Your task to perform on an android device: turn on bluetooth scan Image 0: 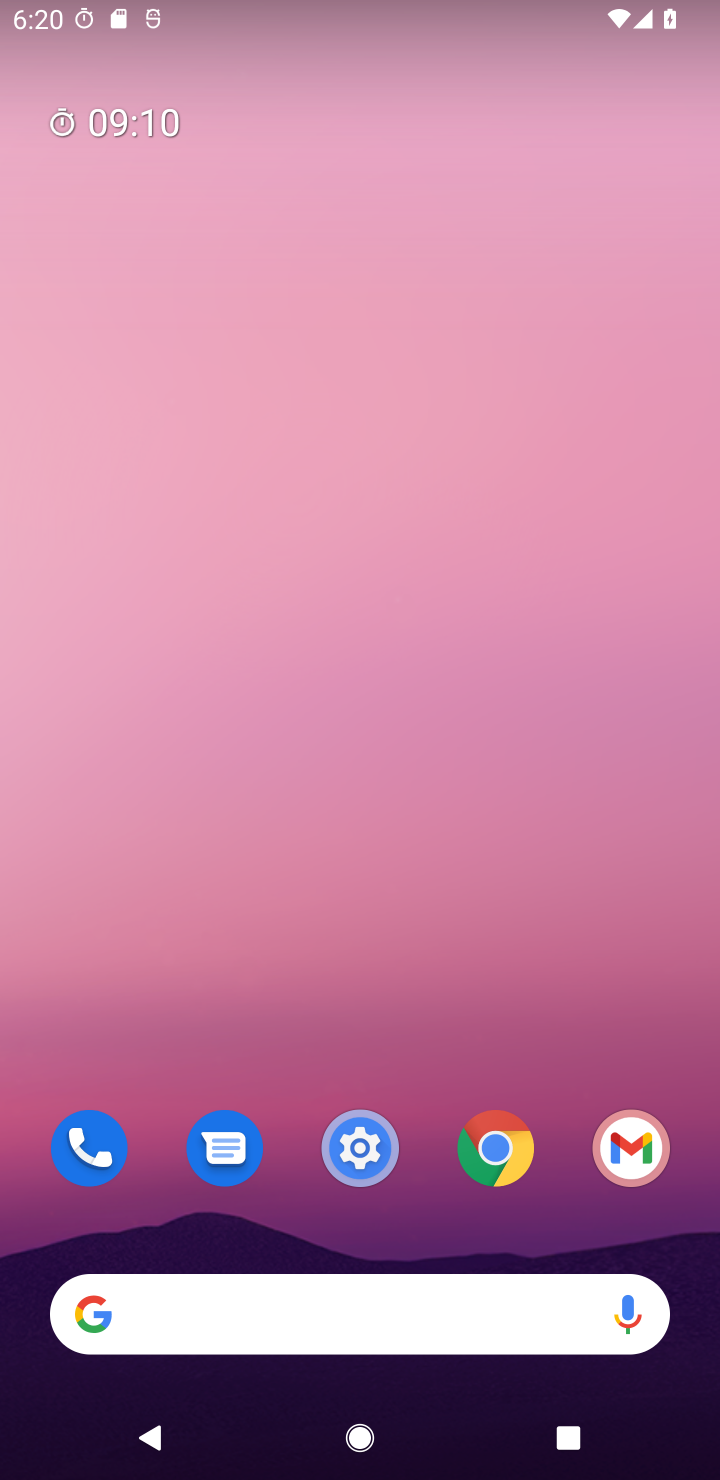
Step 0: click (378, 1149)
Your task to perform on an android device: turn on bluetooth scan Image 1: 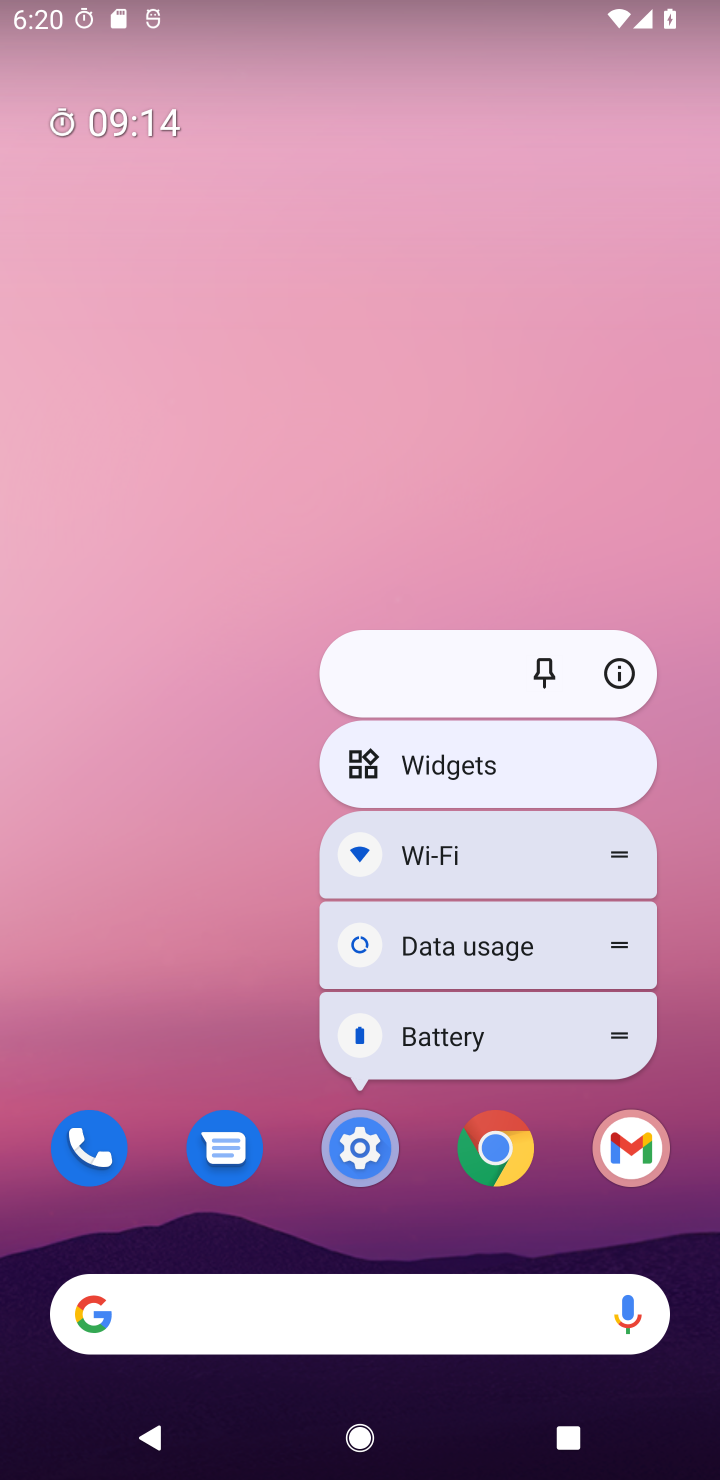
Step 1: click (373, 1168)
Your task to perform on an android device: turn on bluetooth scan Image 2: 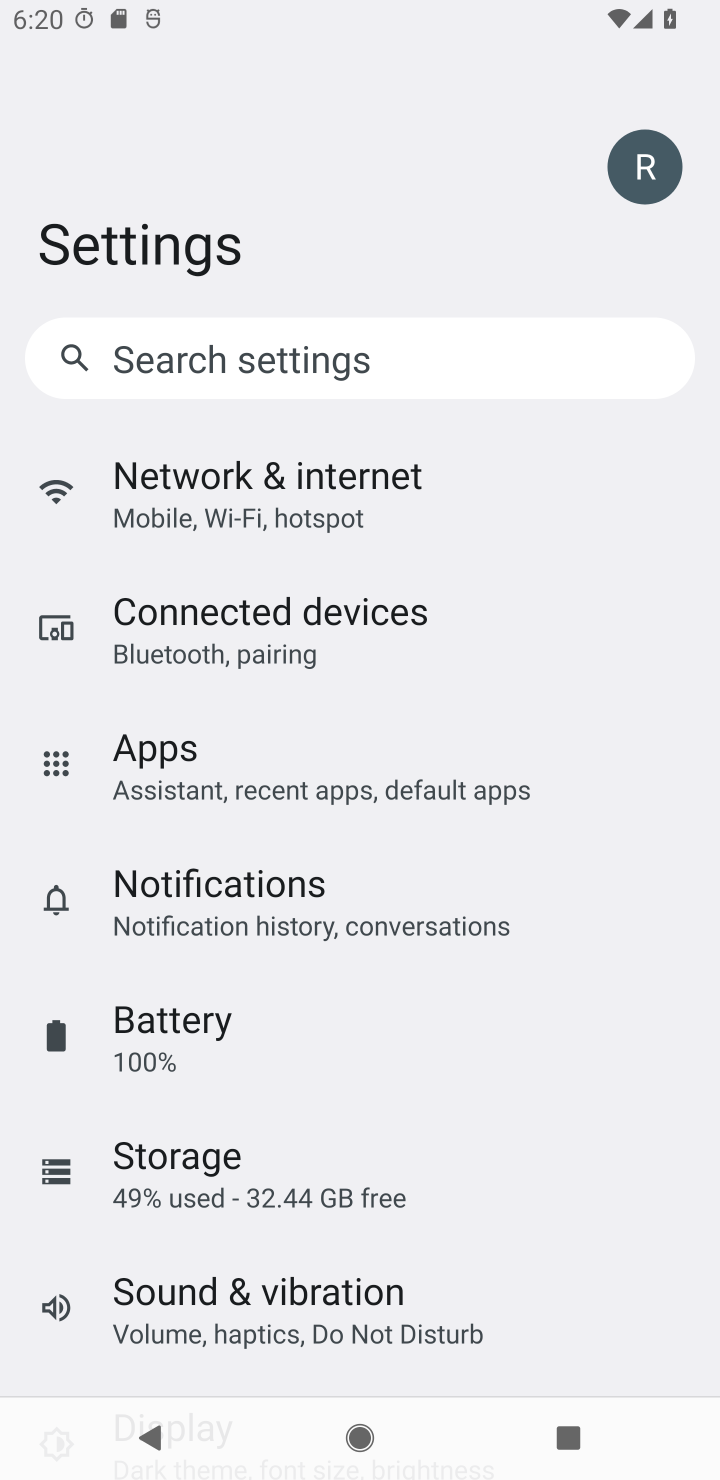
Step 2: drag from (182, 1199) to (338, 641)
Your task to perform on an android device: turn on bluetooth scan Image 3: 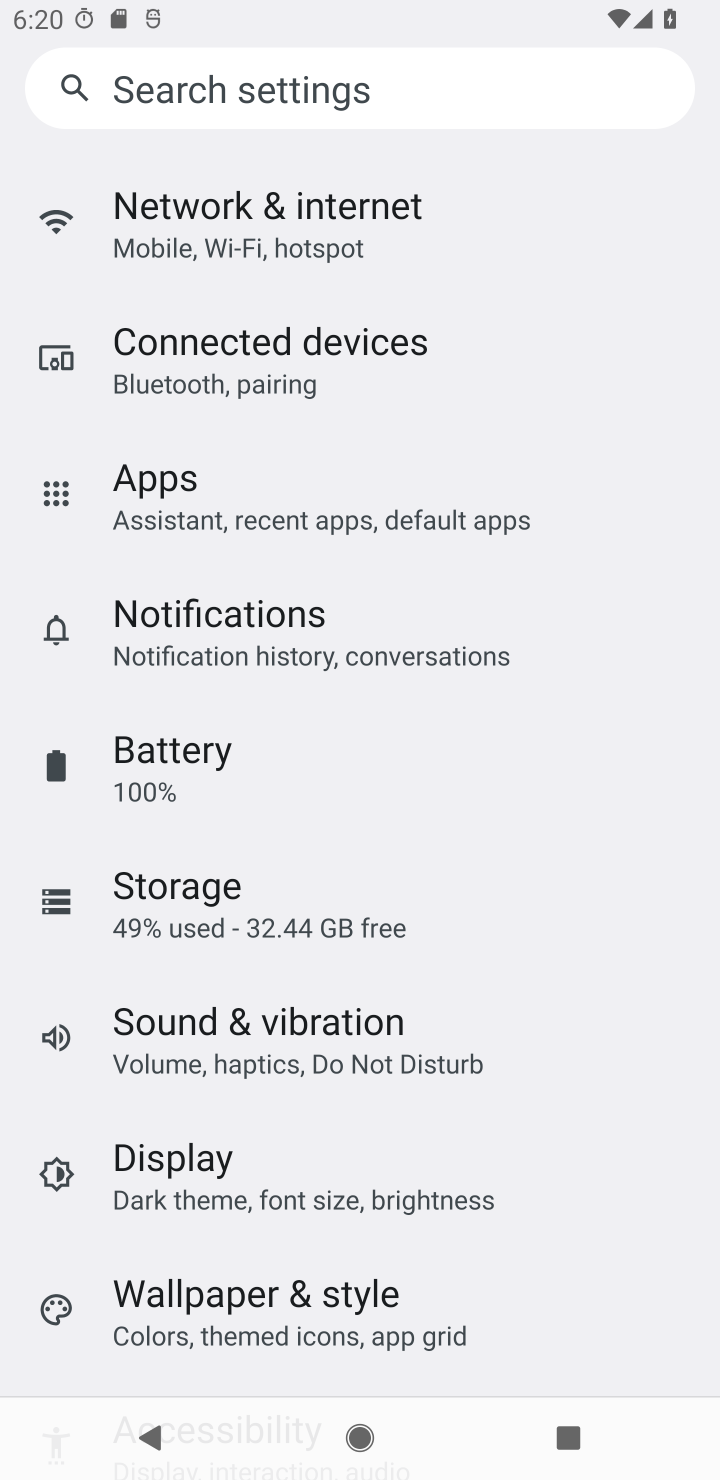
Step 3: drag from (240, 1252) to (283, 616)
Your task to perform on an android device: turn on bluetooth scan Image 4: 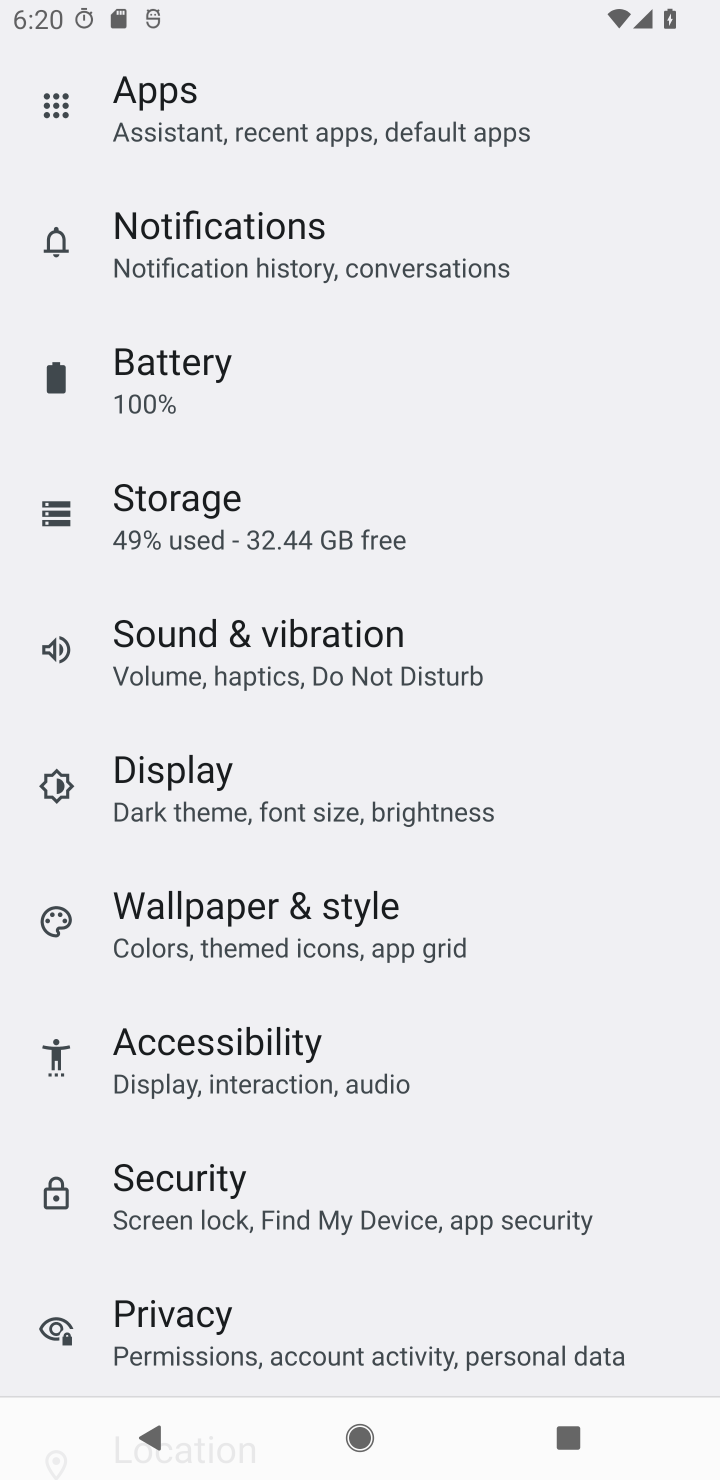
Step 4: drag from (243, 1238) to (338, 405)
Your task to perform on an android device: turn on bluetooth scan Image 5: 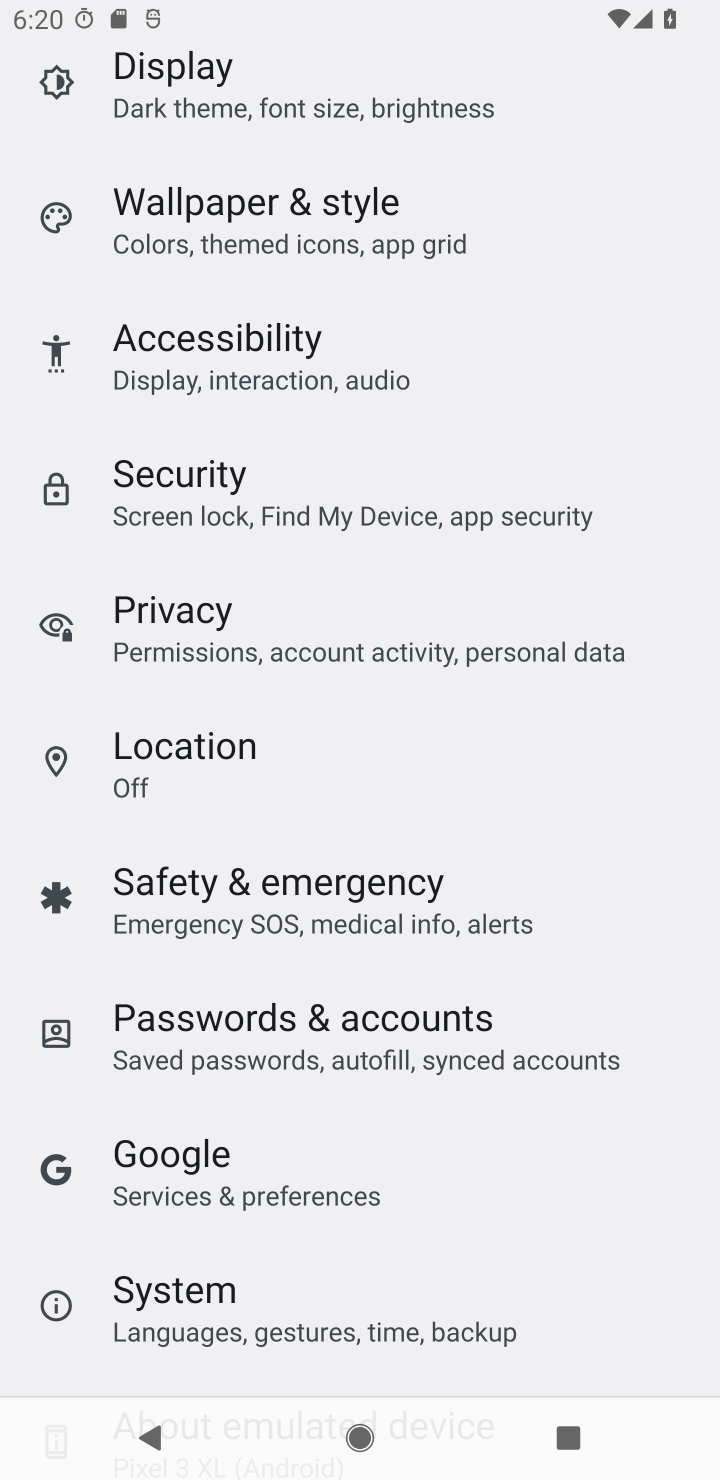
Step 5: click (219, 756)
Your task to perform on an android device: turn on bluetooth scan Image 6: 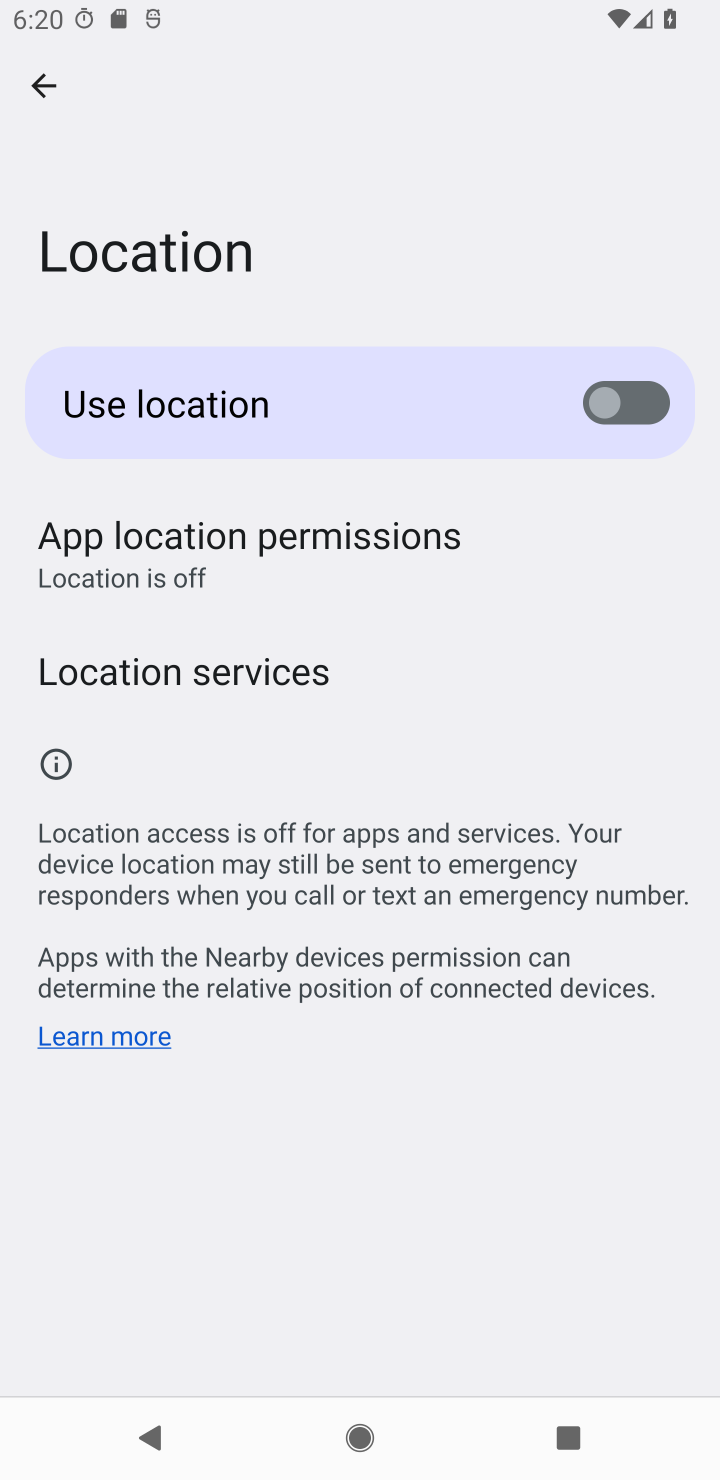
Step 6: click (181, 673)
Your task to perform on an android device: turn on bluetooth scan Image 7: 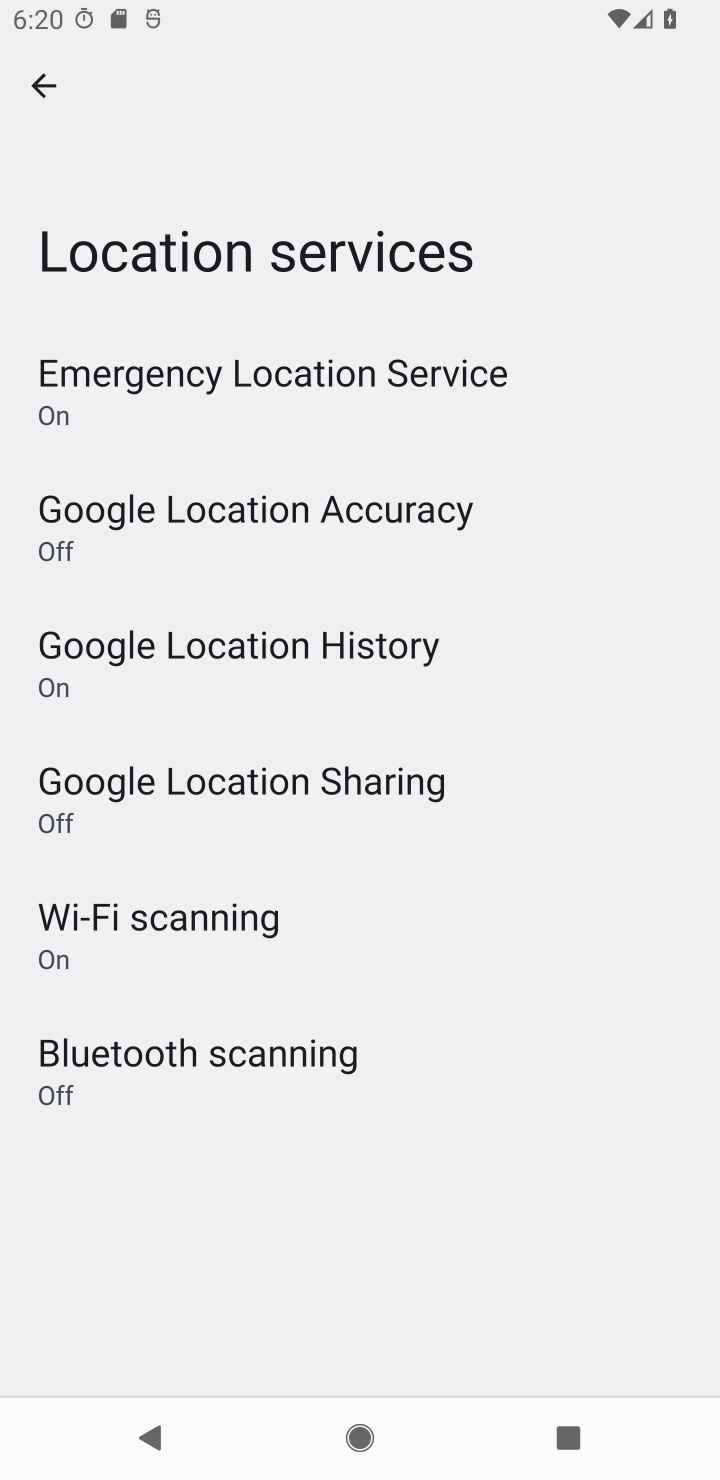
Step 7: click (231, 1069)
Your task to perform on an android device: turn on bluetooth scan Image 8: 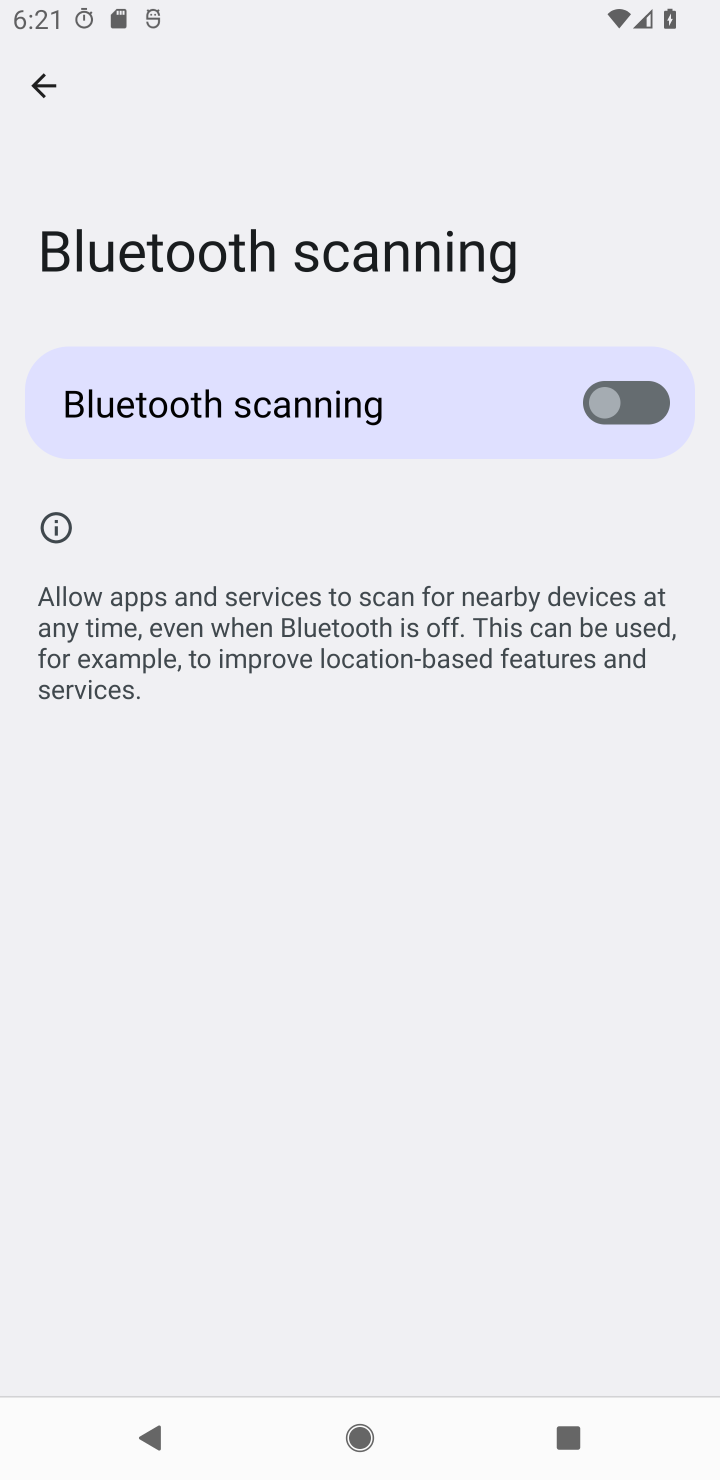
Step 8: click (663, 383)
Your task to perform on an android device: turn on bluetooth scan Image 9: 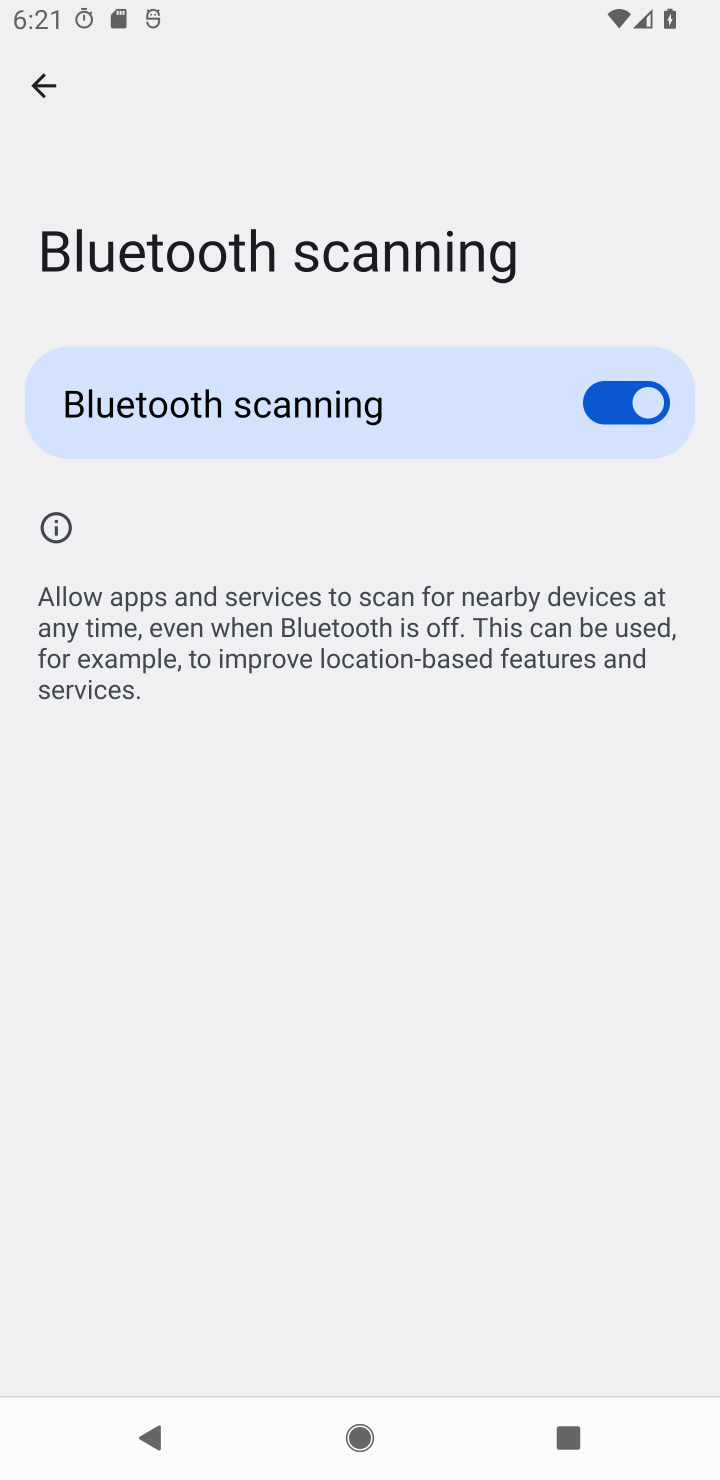
Step 9: task complete